Your task to perform on an android device: What is the news today? Image 0: 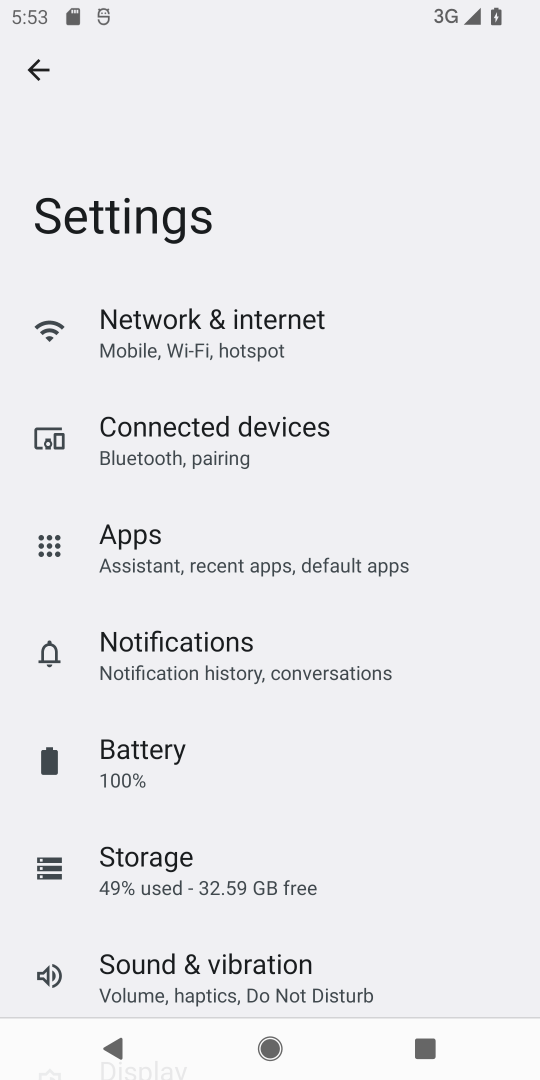
Step 0: press home button
Your task to perform on an android device: What is the news today? Image 1: 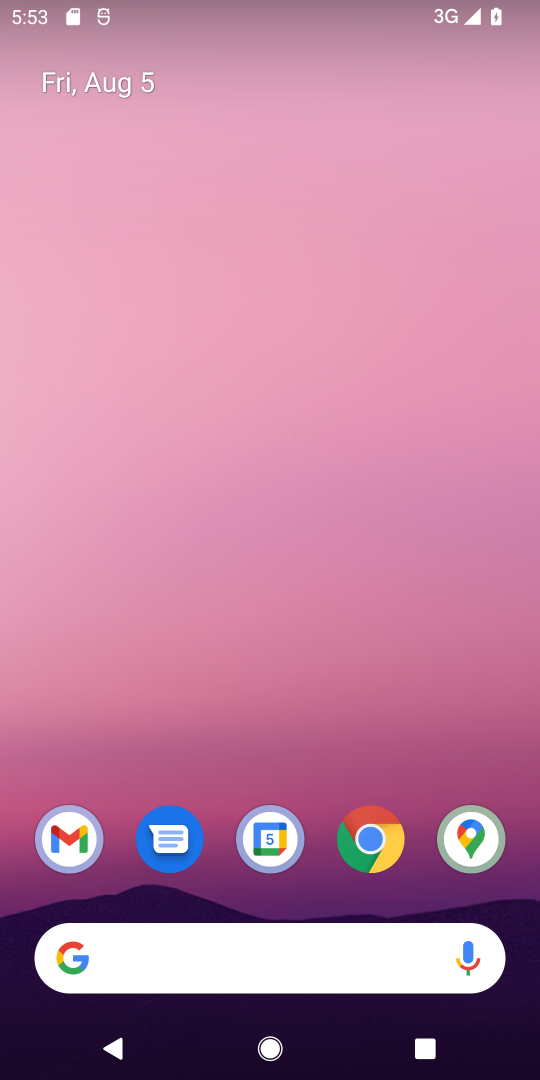
Step 1: drag from (246, 727) to (176, 76)
Your task to perform on an android device: What is the news today? Image 2: 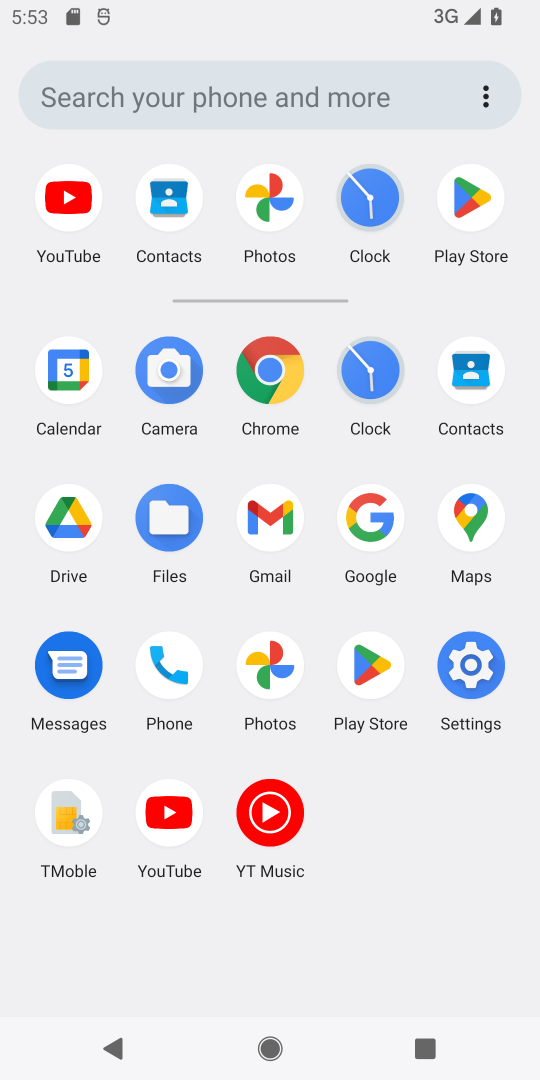
Step 2: click (379, 559)
Your task to perform on an android device: What is the news today? Image 3: 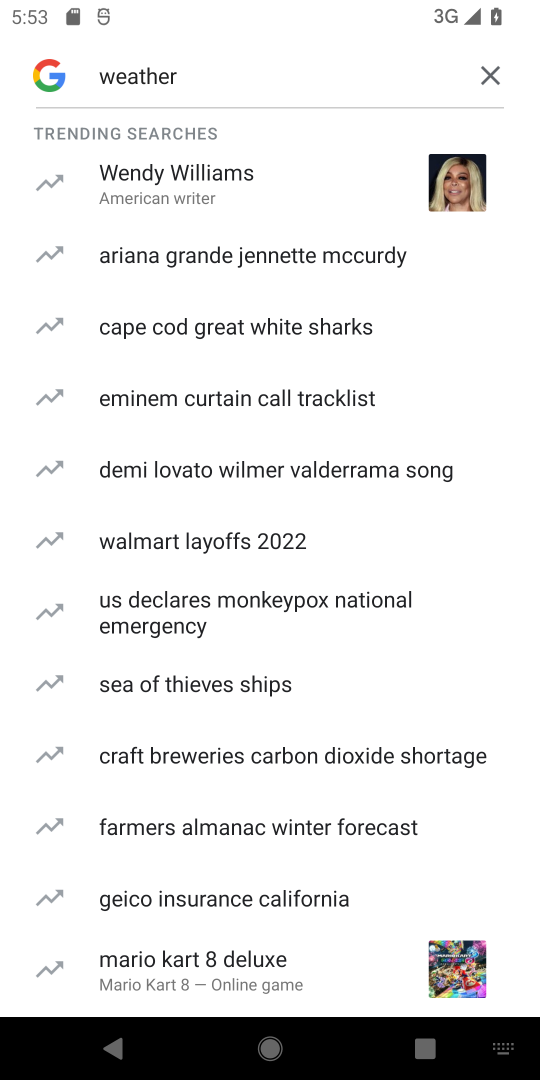
Step 3: click (482, 59)
Your task to perform on an android device: What is the news today? Image 4: 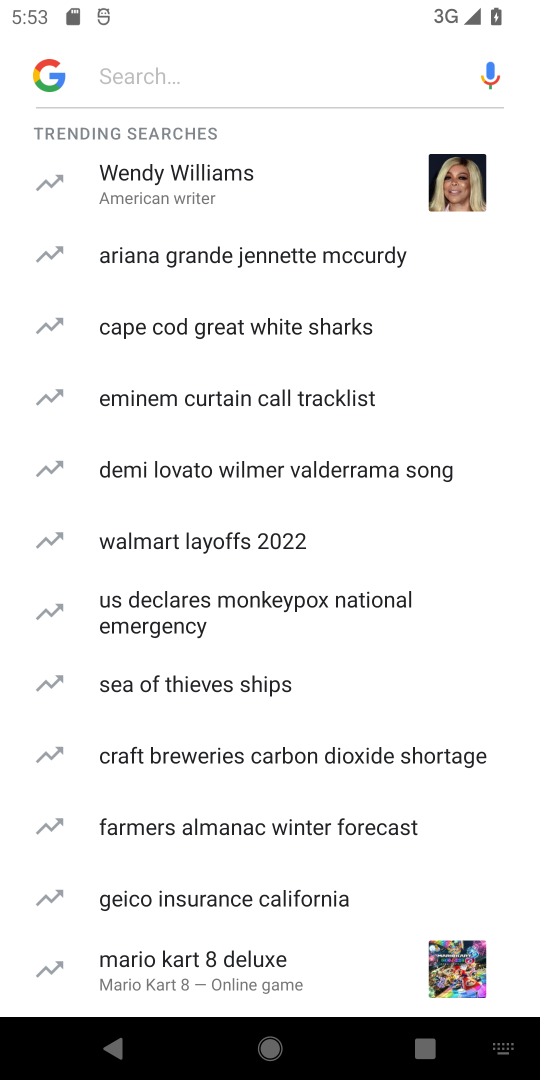
Step 4: click (241, 71)
Your task to perform on an android device: What is the news today? Image 5: 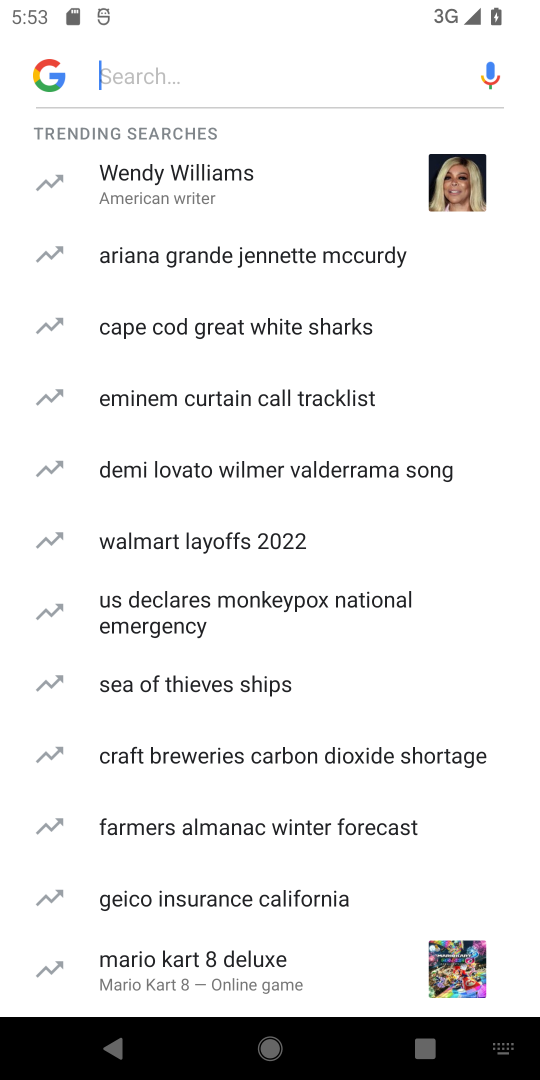
Step 5: type "news today"
Your task to perform on an android device: What is the news today? Image 6: 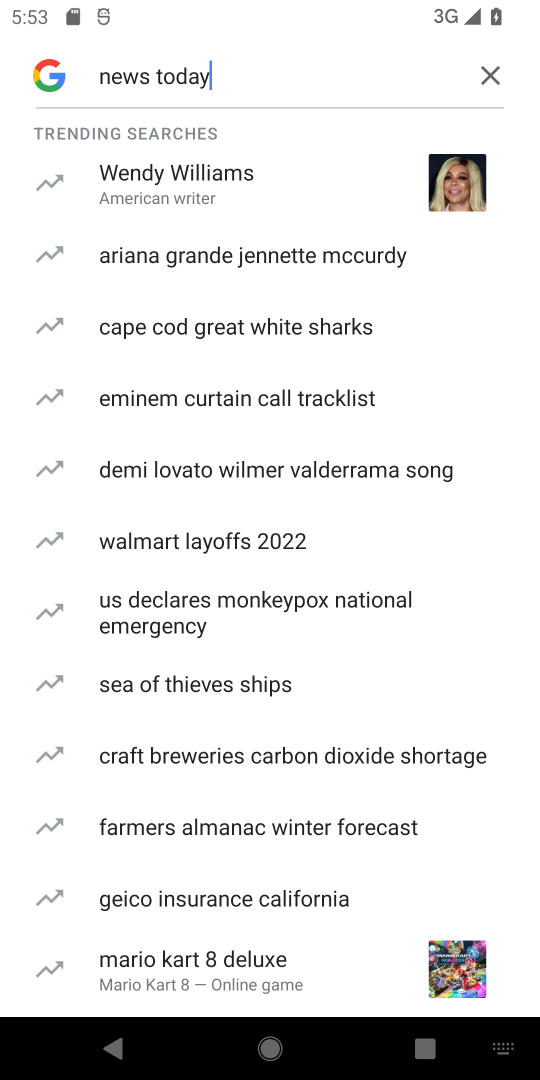
Step 6: type ""
Your task to perform on an android device: What is the news today? Image 7: 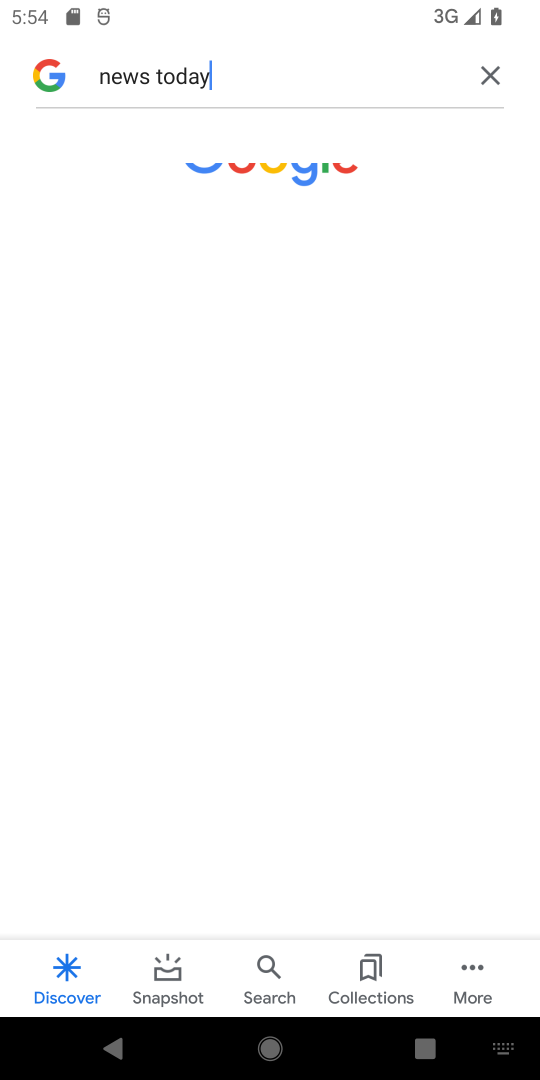
Step 7: task complete